Your task to perform on an android device: open app "NewsBreak: Local News & Alerts" Image 0: 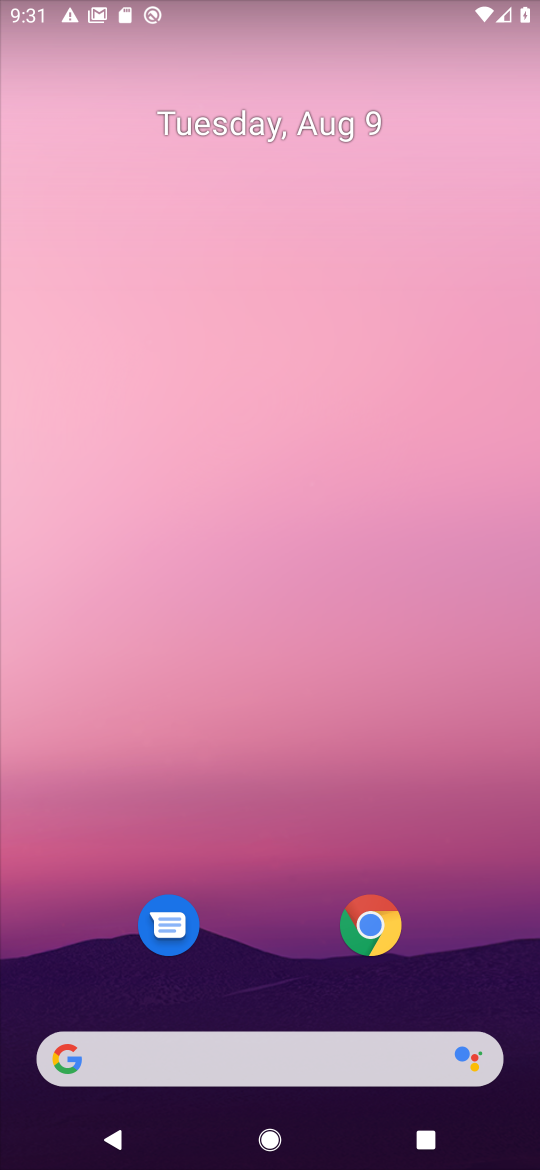
Step 0: click (260, 972)
Your task to perform on an android device: open app "NewsBreak: Local News & Alerts" Image 1: 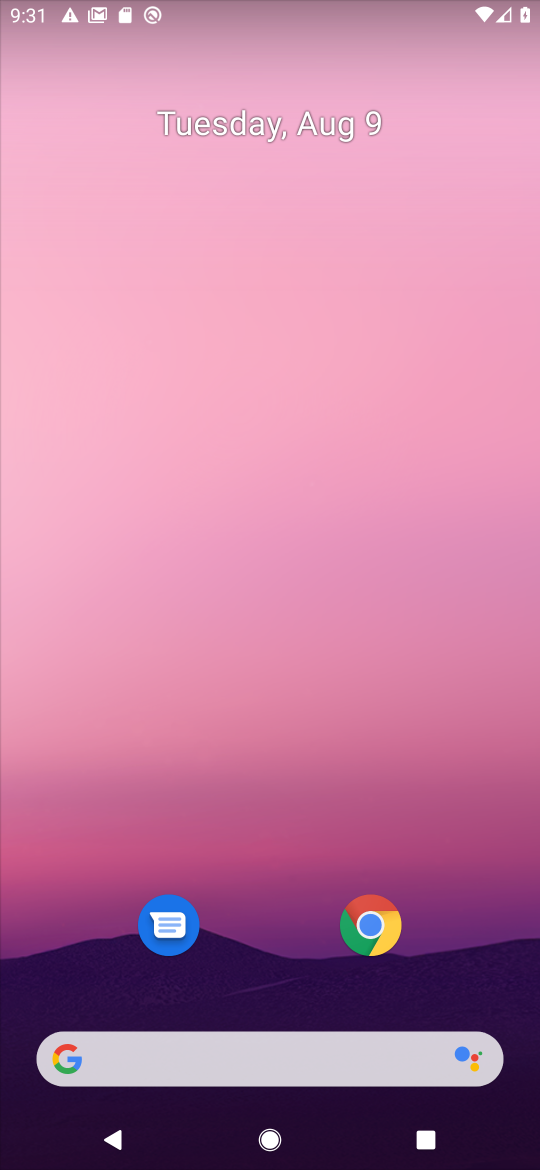
Step 1: drag from (247, 917) to (188, 16)
Your task to perform on an android device: open app "NewsBreak: Local News & Alerts" Image 2: 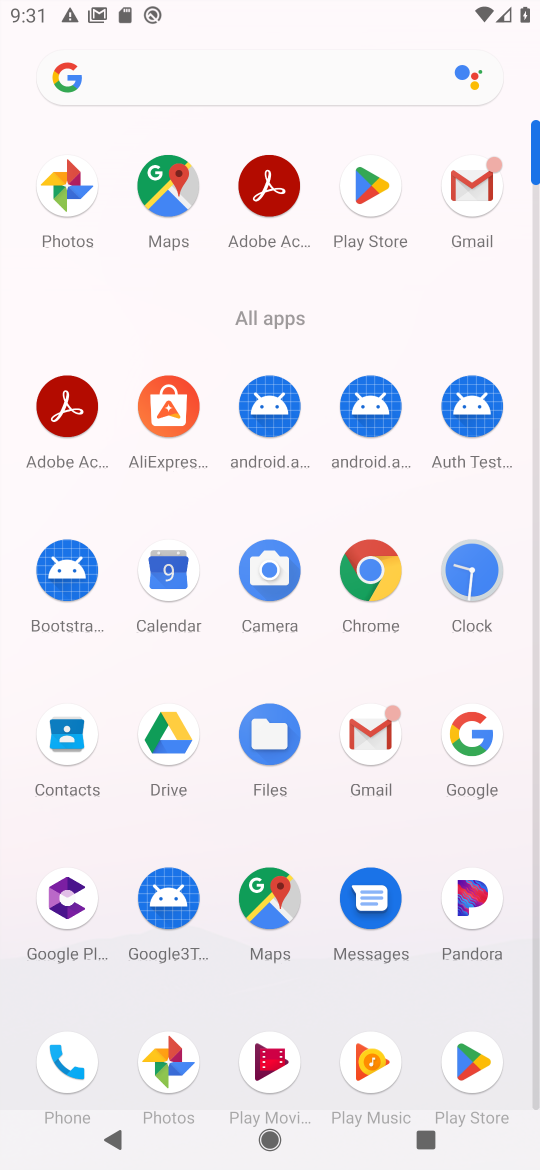
Step 2: click (360, 186)
Your task to perform on an android device: open app "NewsBreak: Local News & Alerts" Image 3: 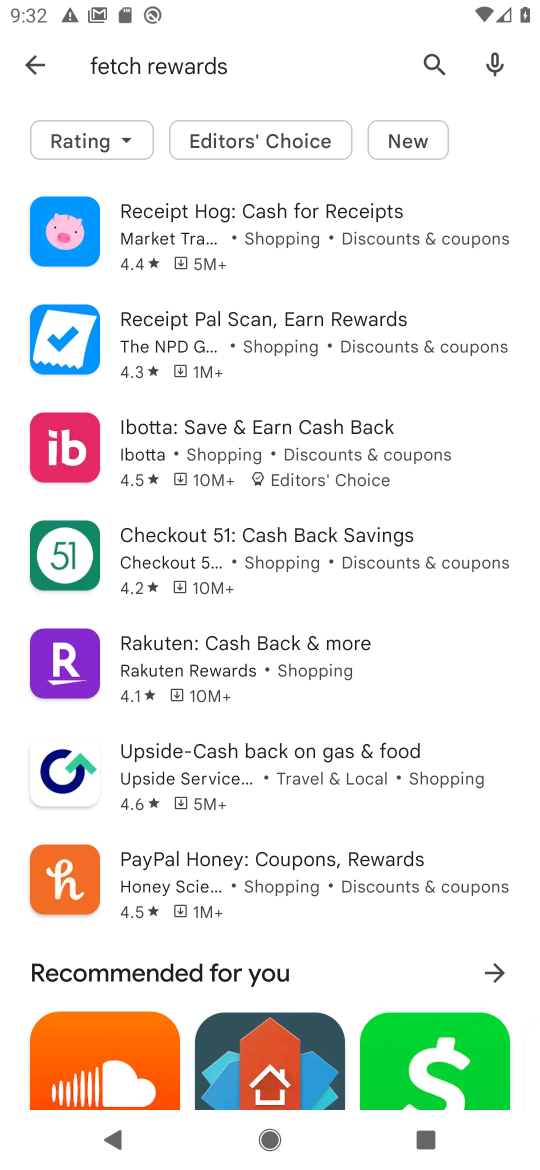
Step 3: click (41, 69)
Your task to perform on an android device: open app "NewsBreak: Local News & Alerts" Image 4: 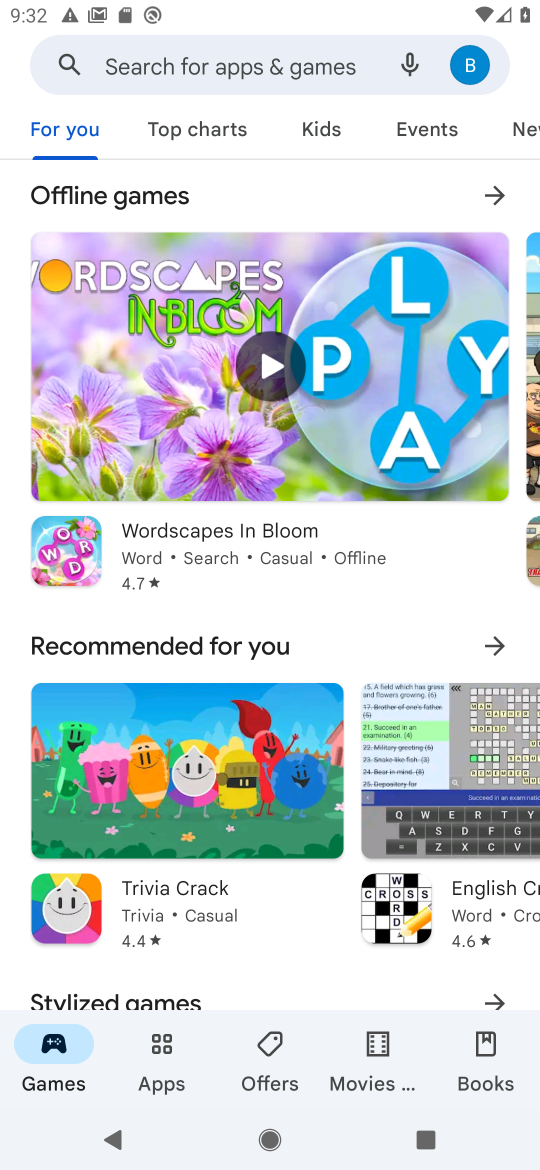
Step 4: click (168, 1047)
Your task to perform on an android device: open app "NewsBreak: Local News & Alerts" Image 5: 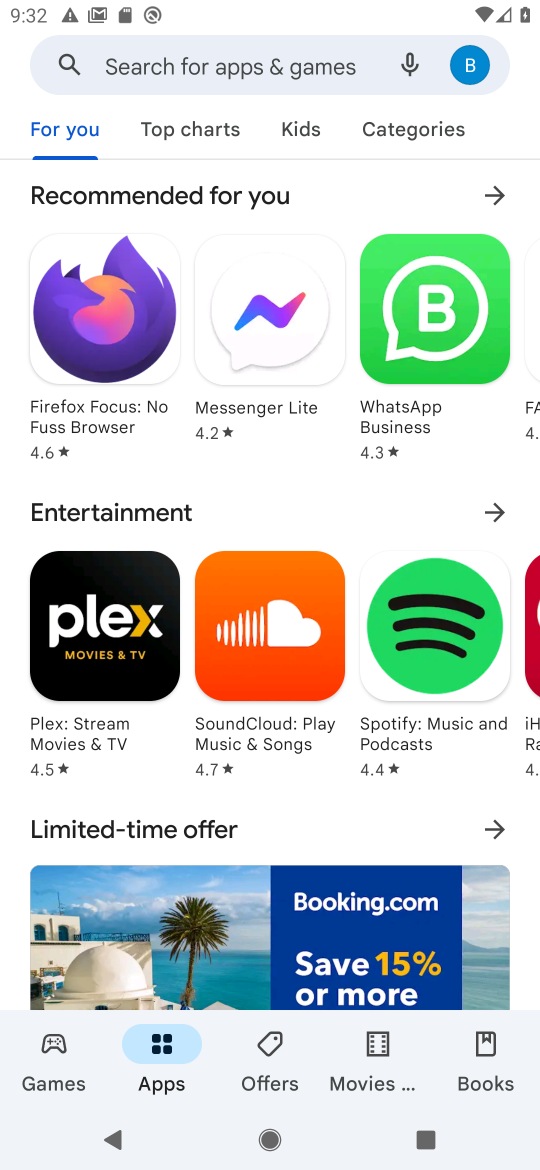
Step 5: click (235, 61)
Your task to perform on an android device: open app "NewsBreak: Local News & Alerts" Image 6: 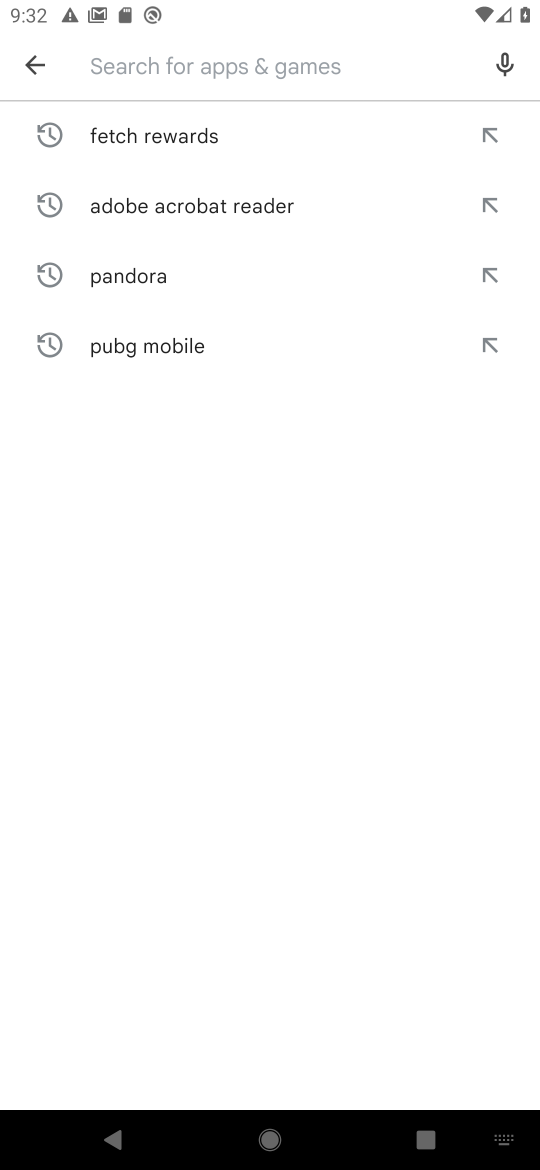
Step 6: type "NewsBreak: Local News & Alerts"
Your task to perform on an android device: open app "NewsBreak: Local News & Alerts" Image 7: 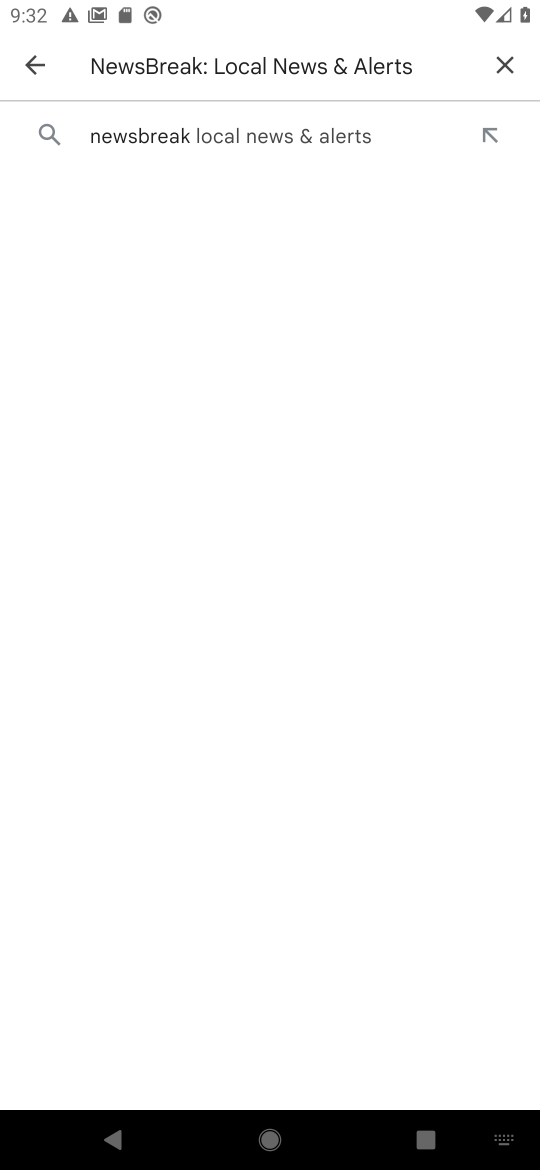
Step 7: click (174, 131)
Your task to perform on an android device: open app "NewsBreak: Local News & Alerts" Image 8: 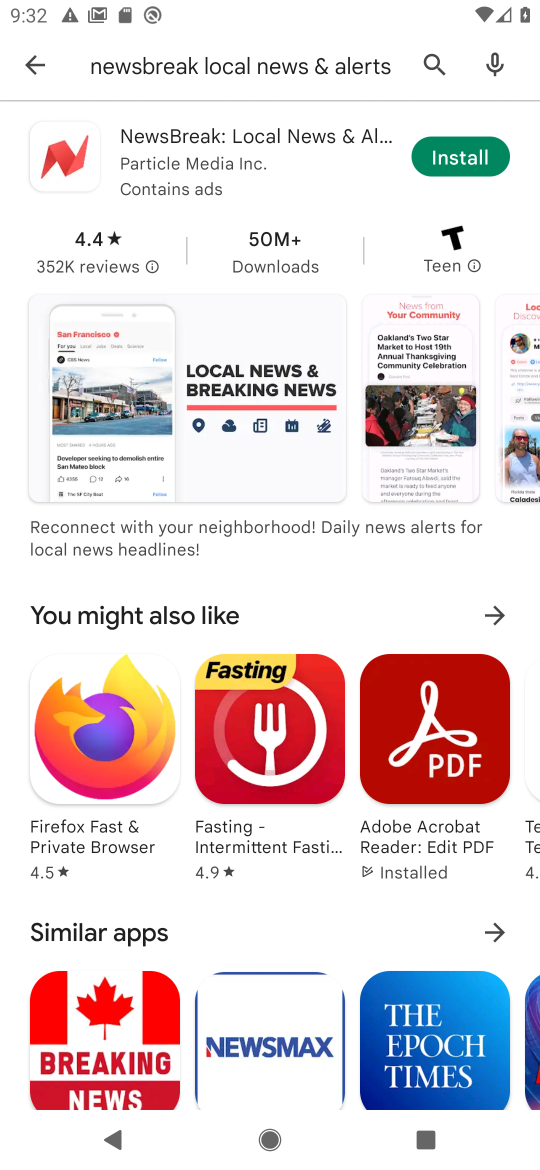
Step 8: click (479, 159)
Your task to perform on an android device: open app "NewsBreak: Local News & Alerts" Image 9: 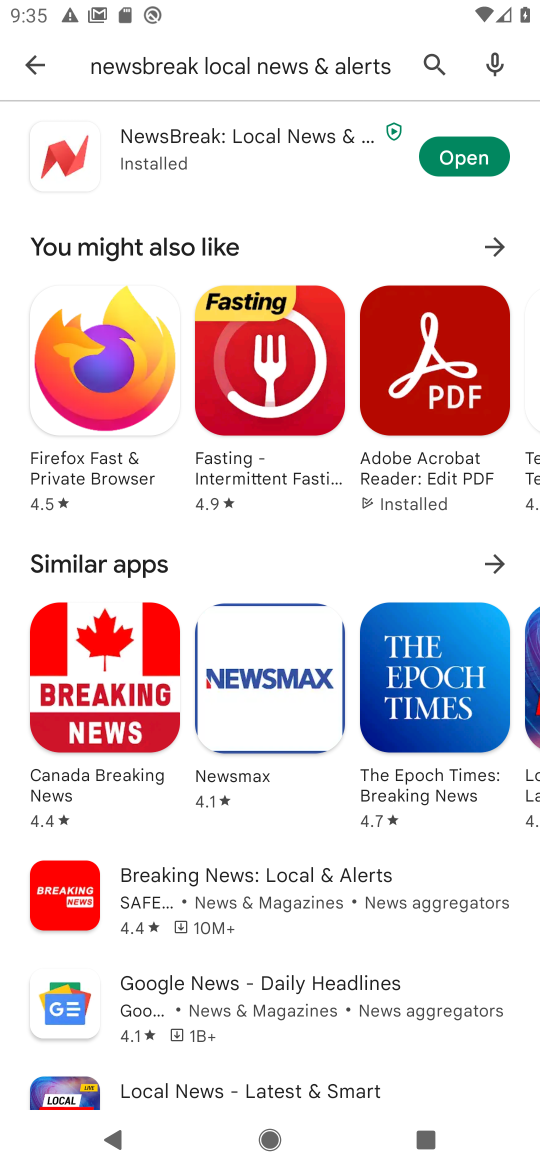
Step 9: click (451, 149)
Your task to perform on an android device: open app "NewsBreak: Local News & Alerts" Image 10: 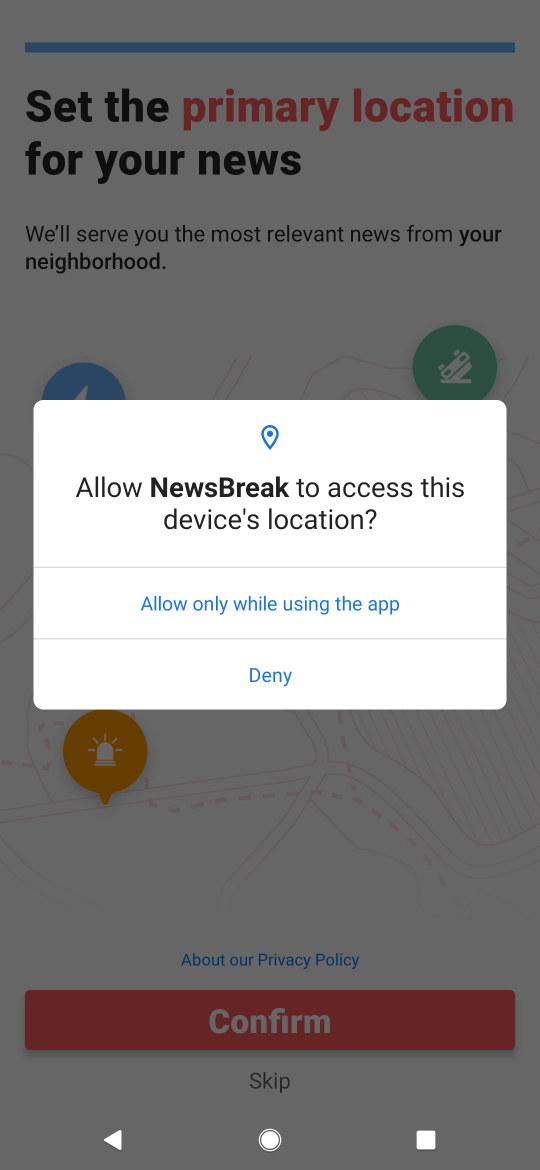
Step 10: click (291, 602)
Your task to perform on an android device: open app "NewsBreak: Local News & Alerts" Image 11: 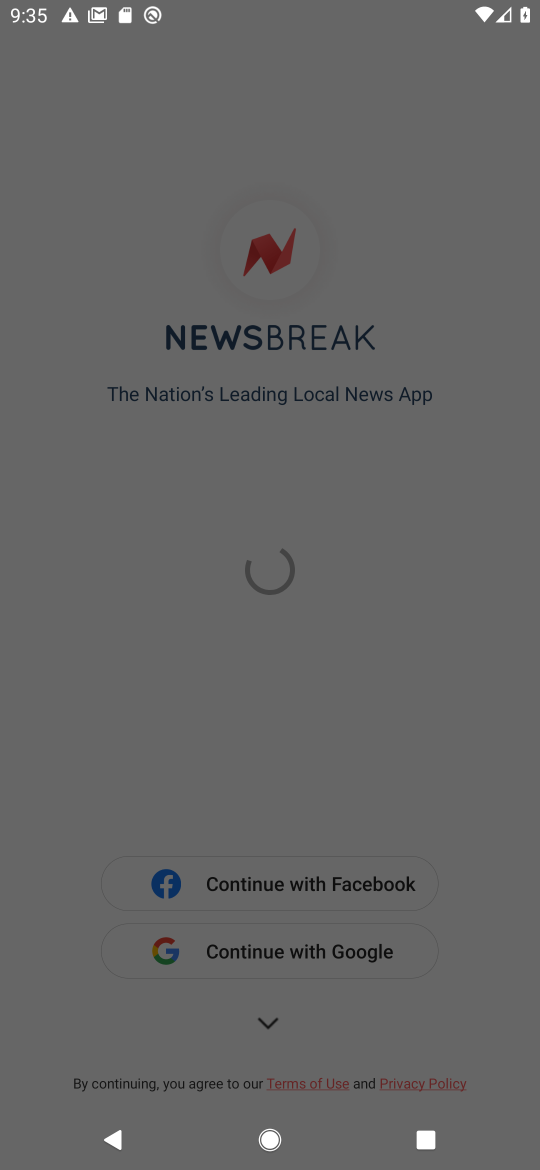
Step 11: task complete